Your task to perform on an android device: open a new tab in the chrome app Image 0: 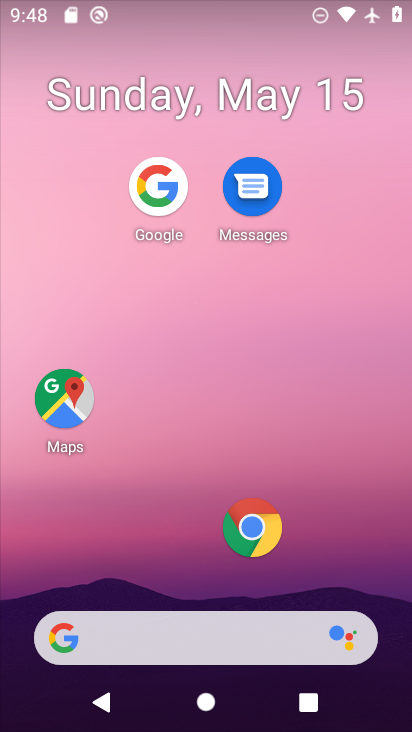
Step 0: press home button
Your task to perform on an android device: open a new tab in the chrome app Image 1: 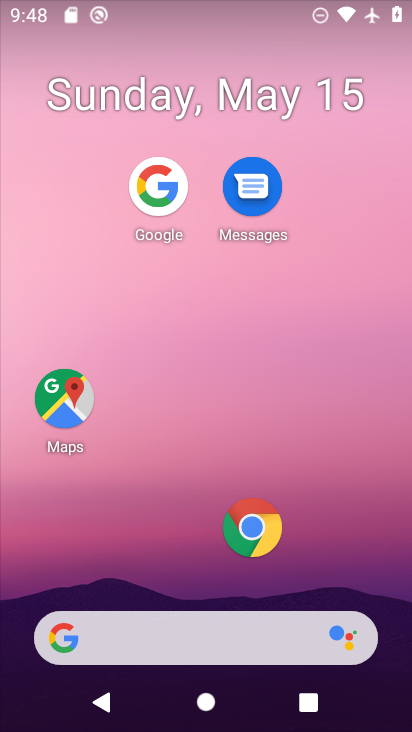
Step 1: click (256, 519)
Your task to perform on an android device: open a new tab in the chrome app Image 2: 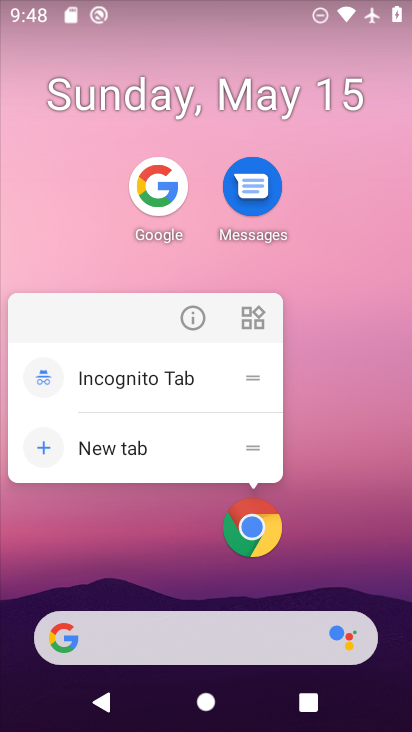
Step 2: click (247, 532)
Your task to perform on an android device: open a new tab in the chrome app Image 3: 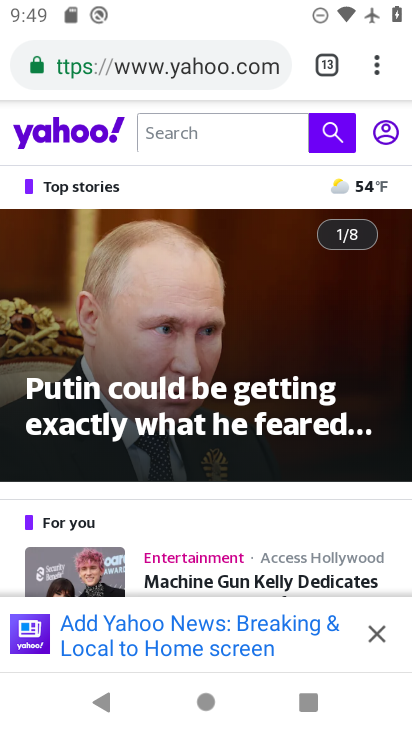
Step 3: task complete